Your task to perform on an android device: turn off wifi Image 0: 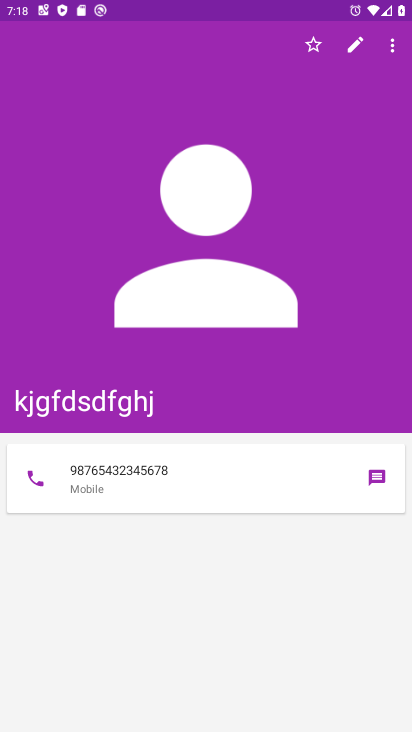
Step 0: press home button
Your task to perform on an android device: turn off wifi Image 1: 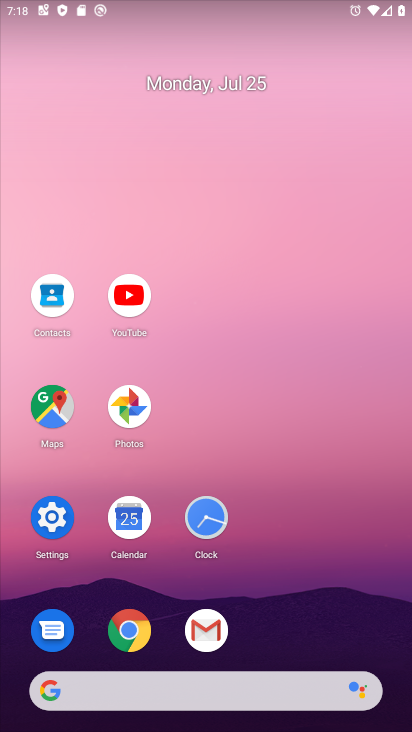
Step 1: click (51, 514)
Your task to perform on an android device: turn off wifi Image 2: 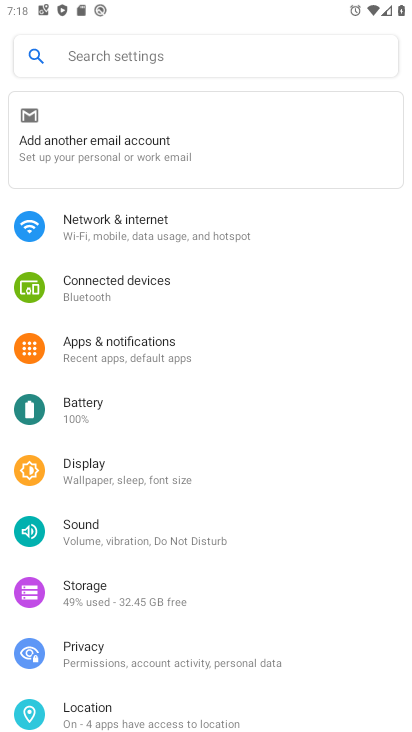
Step 2: click (111, 222)
Your task to perform on an android device: turn off wifi Image 3: 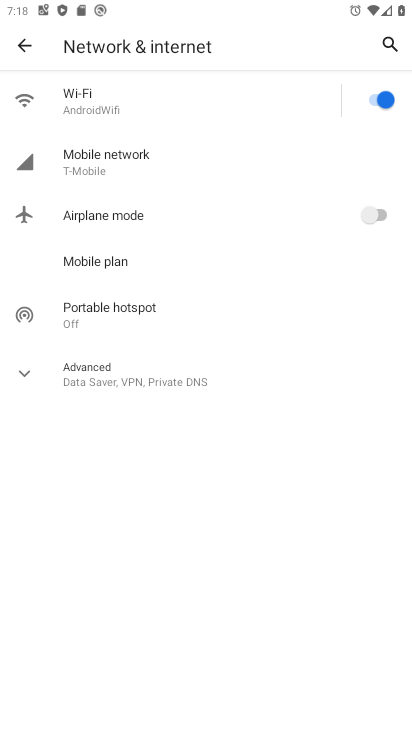
Step 3: click (384, 98)
Your task to perform on an android device: turn off wifi Image 4: 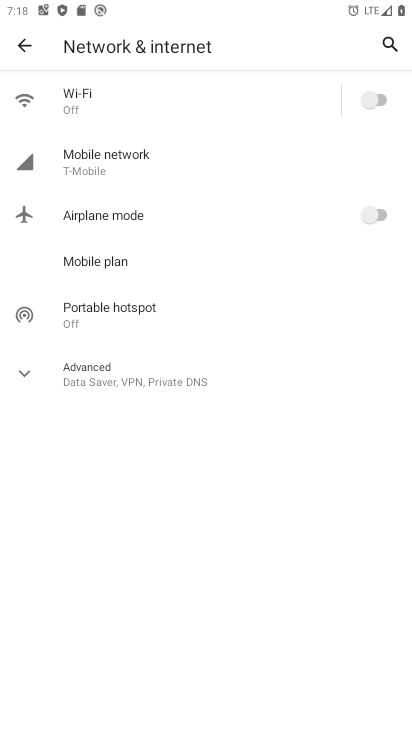
Step 4: task complete